Your task to perform on an android device: turn off notifications settings in the gmail app Image 0: 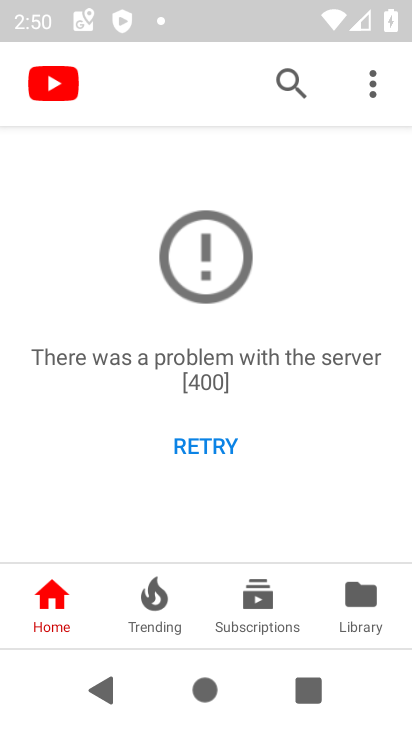
Step 0: press home button
Your task to perform on an android device: turn off notifications settings in the gmail app Image 1: 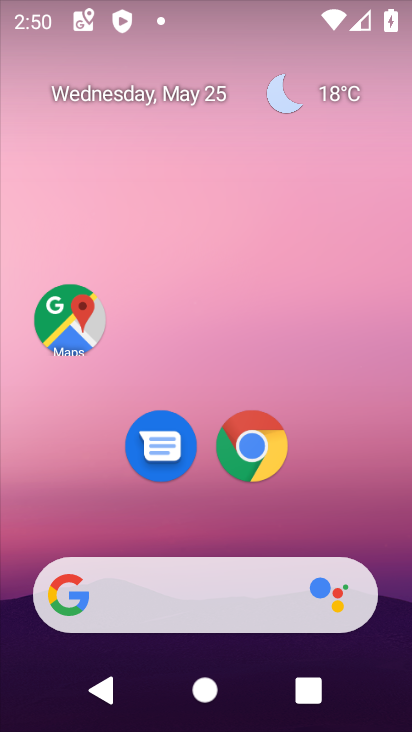
Step 1: drag from (192, 574) to (195, 198)
Your task to perform on an android device: turn off notifications settings in the gmail app Image 2: 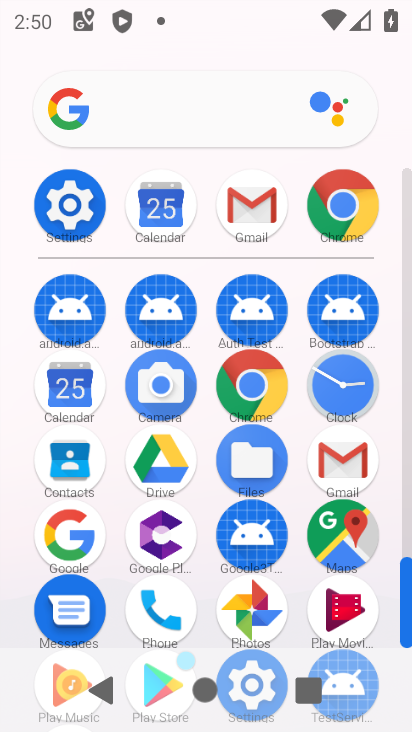
Step 2: click (239, 246)
Your task to perform on an android device: turn off notifications settings in the gmail app Image 3: 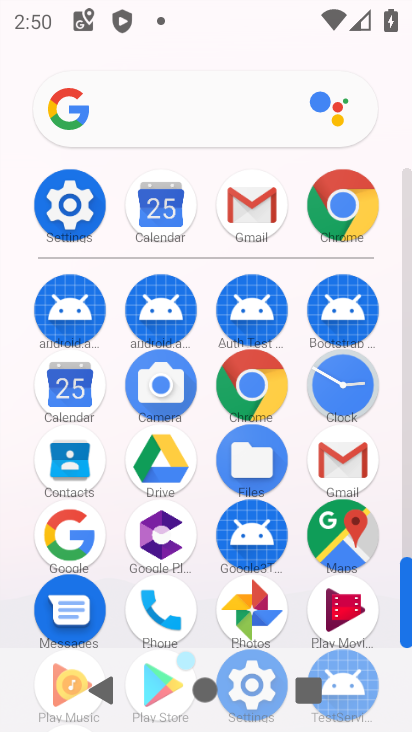
Step 3: click (241, 237)
Your task to perform on an android device: turn off notifications settings in the gmail app Image 4: 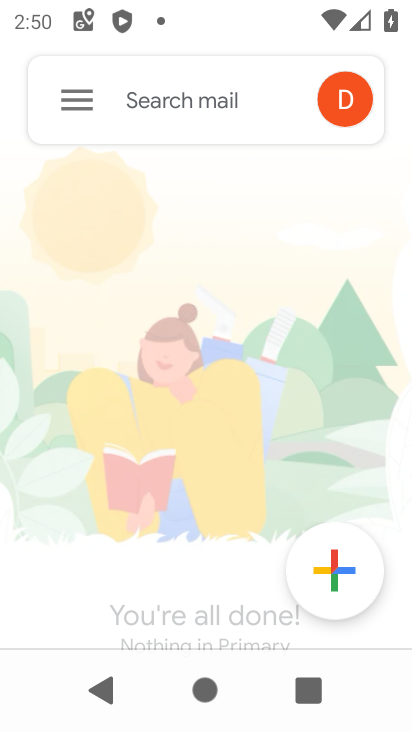
Step 4: click (54, 108)
Your task to perform on an android device: turn off notifications settings in the gmail app Image 5: 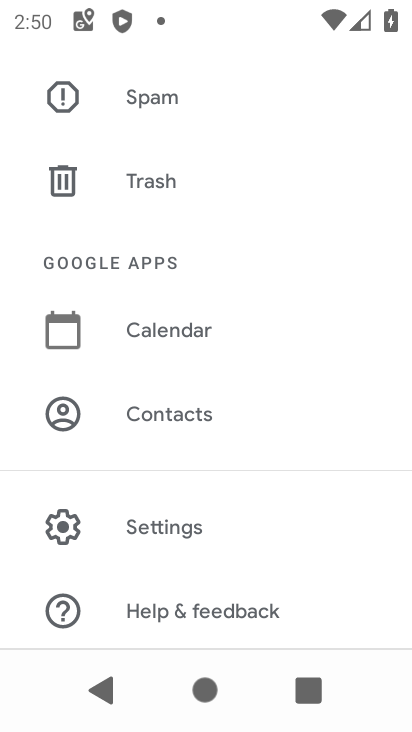
Step 5: click (140, 521)
Your task to perform on an android device: turn off notifications settings in the gmail app Image 6: 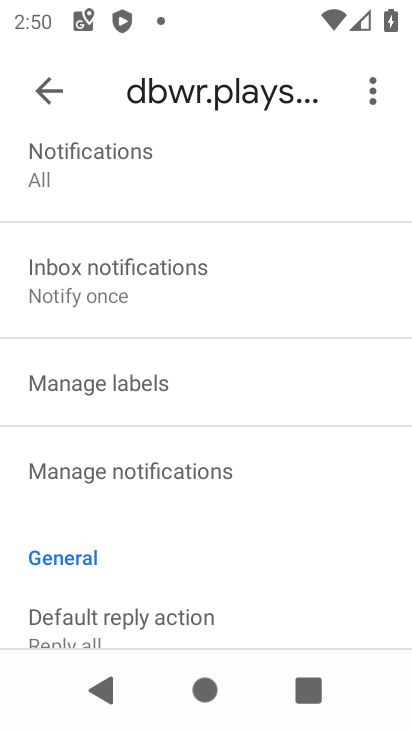
Step 6: click (153, 490)
Your task to perform on an android device: turn off notifications settings in the gmail app Image 7: 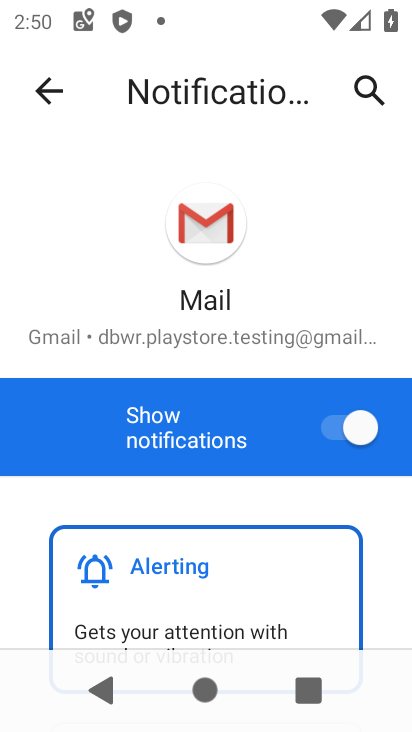
Step 7: click (323, 433)
Your task to perform on an android device: turn off notifications settings in the gmail app Image 8: 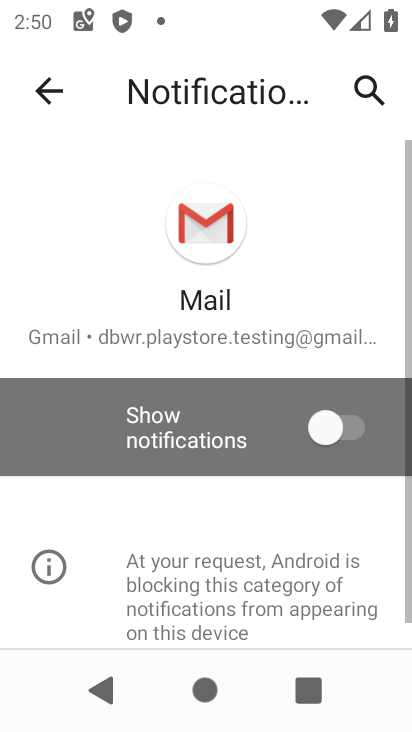
Step 8: task complete